Your task to perform on an android device: Go to display settings Image 0: 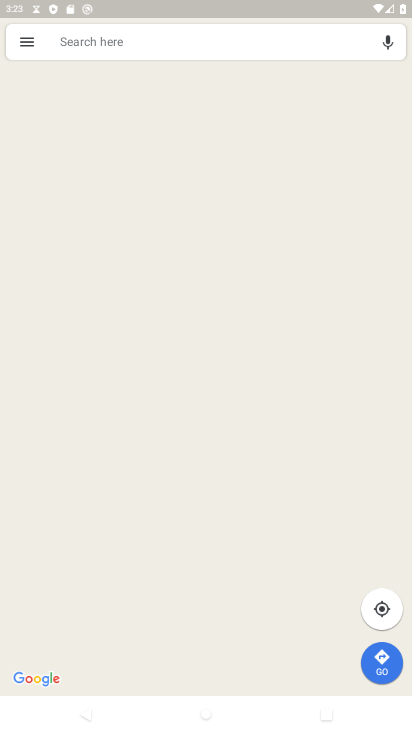
Step 0: drag from (169, 672) to (170, 31)
Your task to perform on an android device: Go to display settings Image 1: 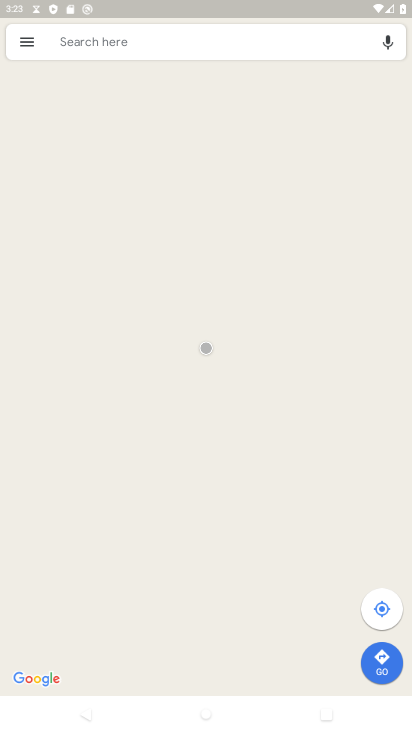
Step 1: press home button
Your task to perform on an android device: Go to display settings Image 2: 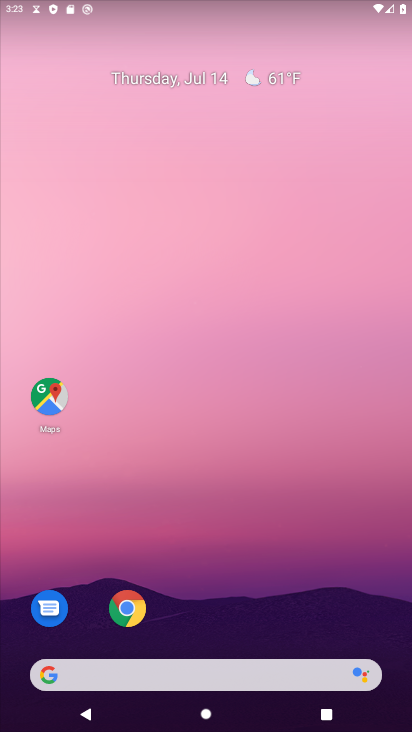
Step 2: drag from (199, 681) to (184, 8)
Your task to perform on an android device: Go to display settings Image 3: 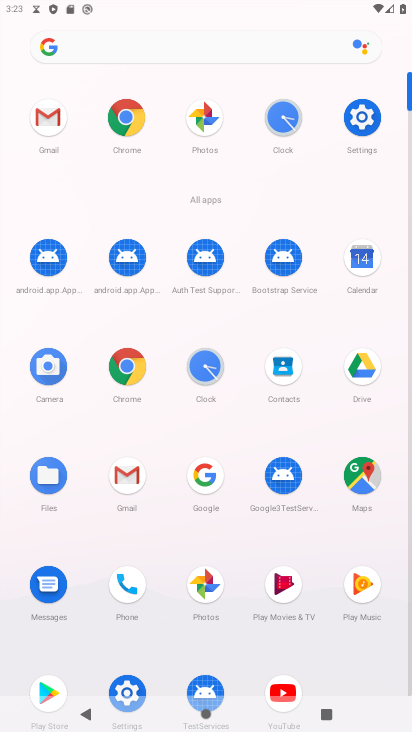
Step 3: click (126, 679)
Your task to perform on an android device: Go to display settings Image 4: 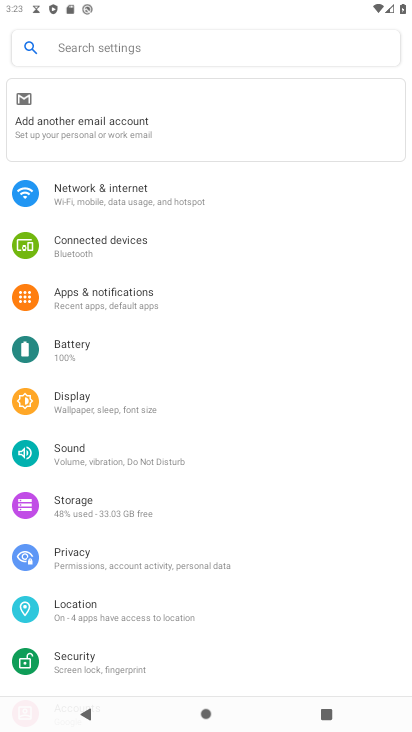
Step 4: click (99, 409)
Your task to perform on an android device: Go to display settings Image 5: 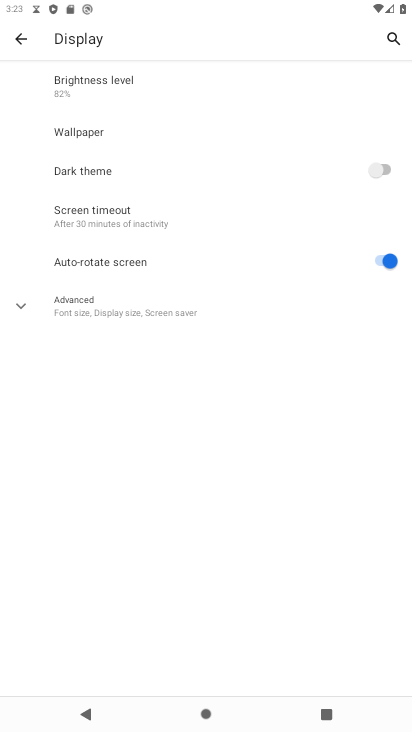
Step 5: task complete